Your task to perform on an android device: Open Reddit.com Image 0: 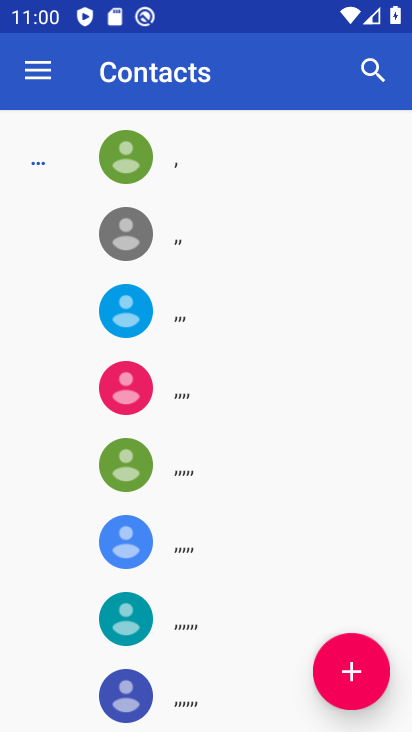
Step 0: press home button
Your task to perform on an android device: Open Reddit.com Image 1: 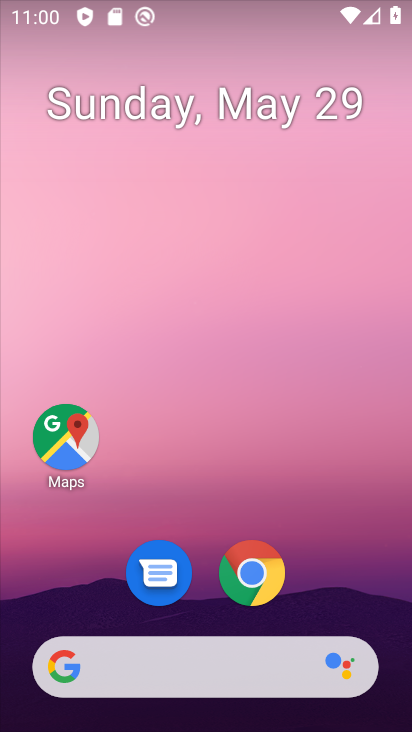
Step 1: click (147, 672)
Your task to perform on an android device: Open Reddit.com Image 2: 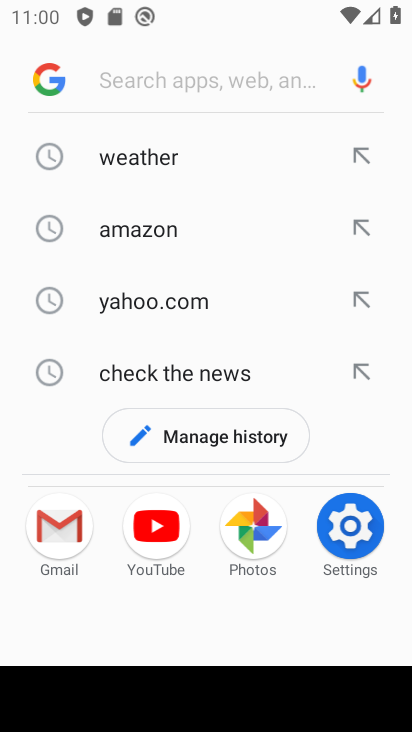
Step 2: type " Reddit.com"
Your task to perform on an android device: Open Reddit.com Image 3: 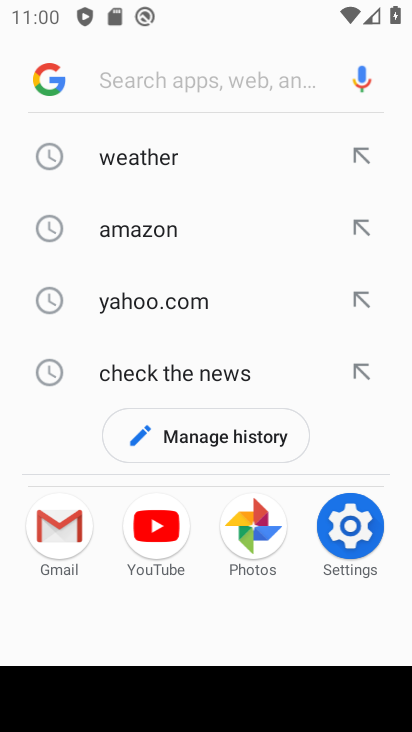
Step 3: click (232, 80)
Your task to perform on an android device: Open Reddit.com Image 4: 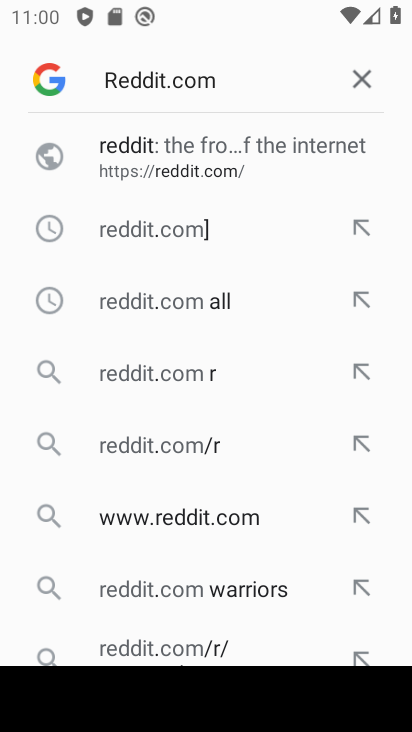
Step 4: click (175, 143)
Your task to perform on an android device: Open Reddit.com Image 5: 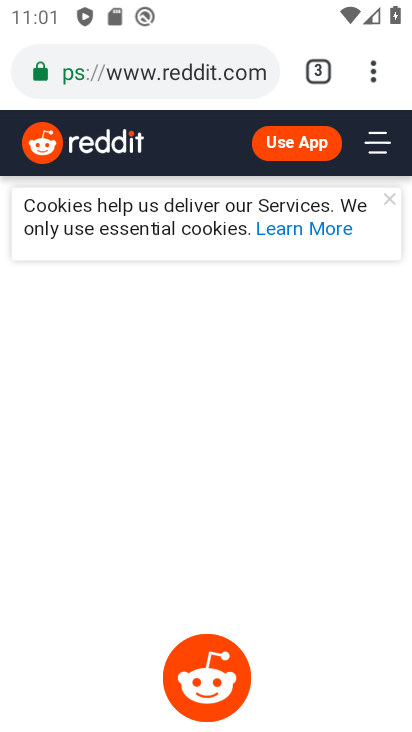
Step 5: task complete